Your task to perform on an android device: open device folders in google photos Image 0: 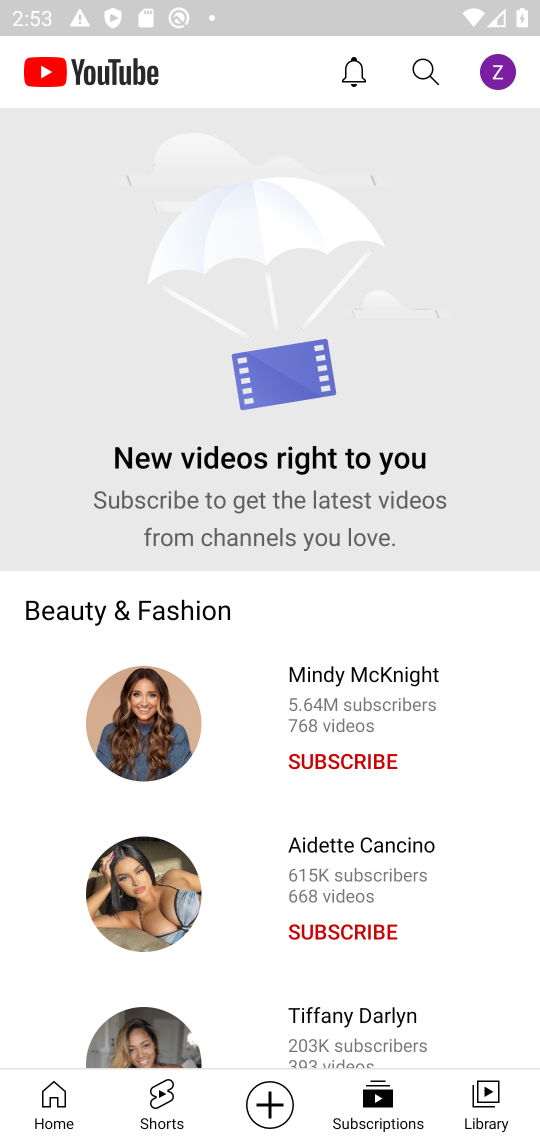
Step 0: press home button
Your task to perform on an android device: open device folders in google photos Image 1: 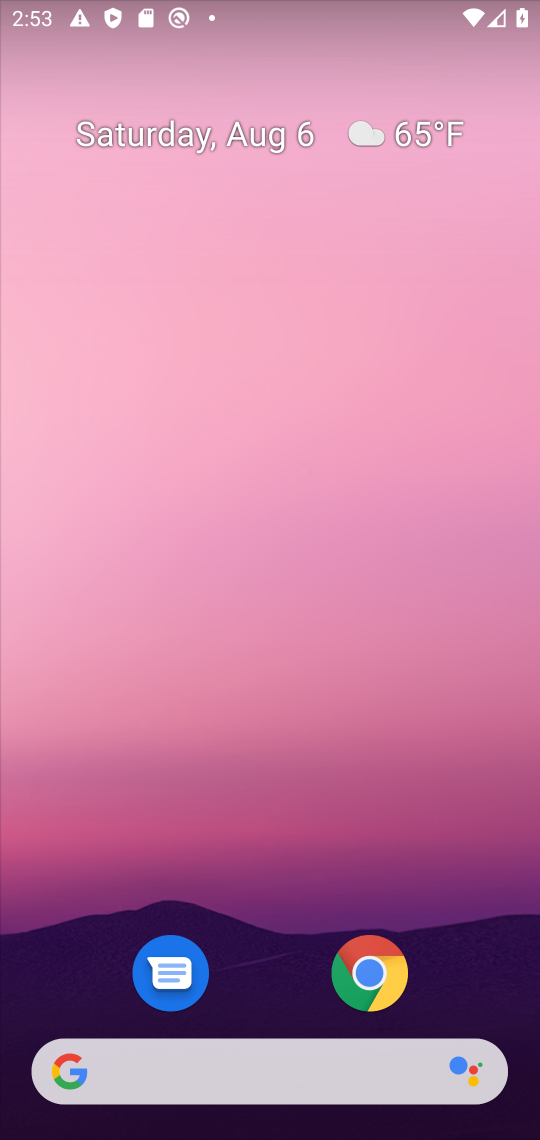
Step 1: drag from (267, 917) to (305, 26)
Your task to perform on an android device: open device folders in google photos Image 2: 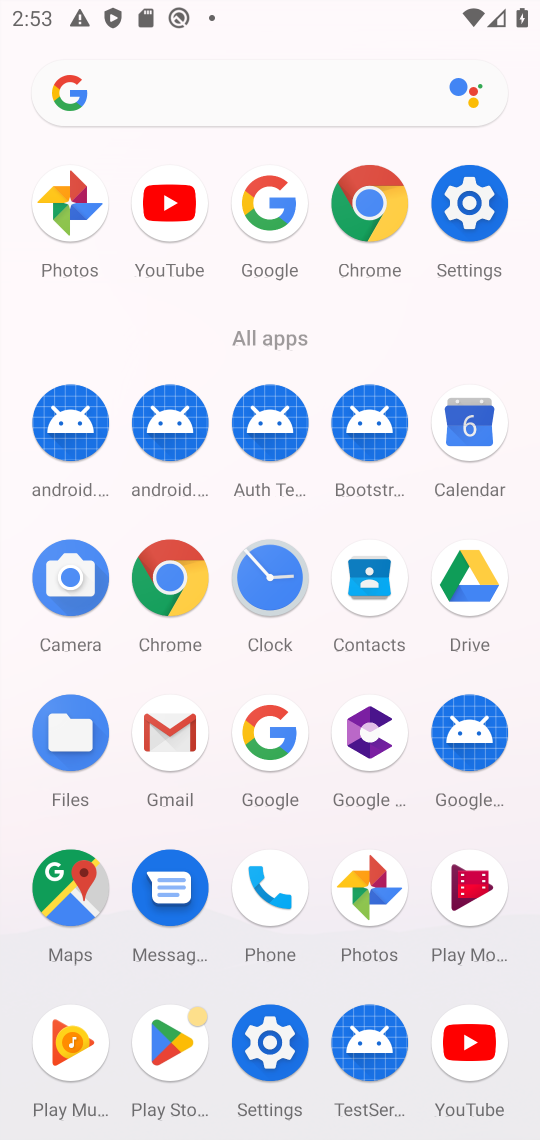
Step 2: click (367, 888)
Your task to perform on an android device: open device folders in google photos Image 3: 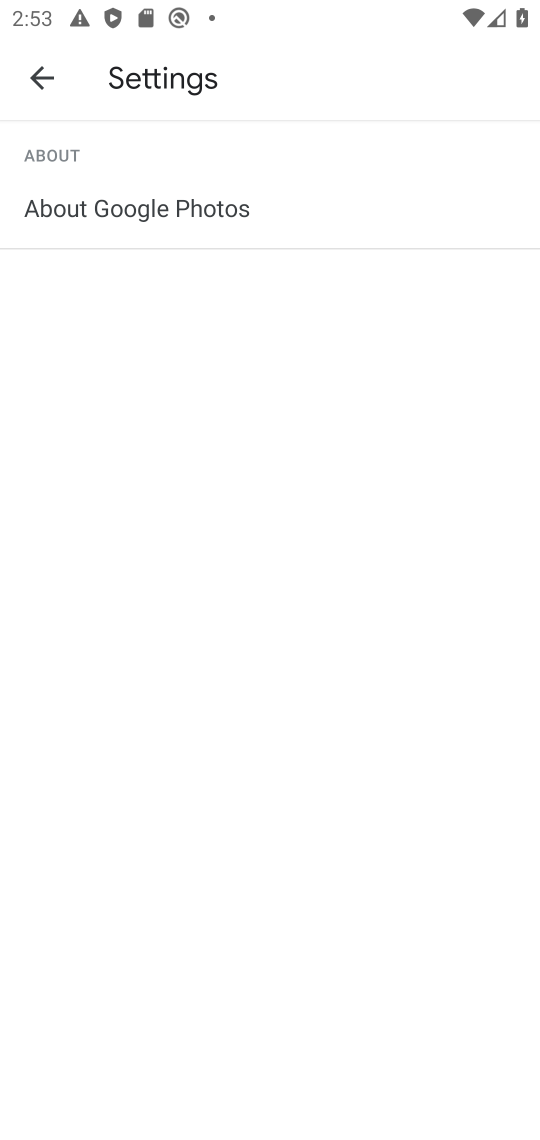
Step 3: click (54, 78)
Your task to perform on an android device: open device folders in google photos Image 4: 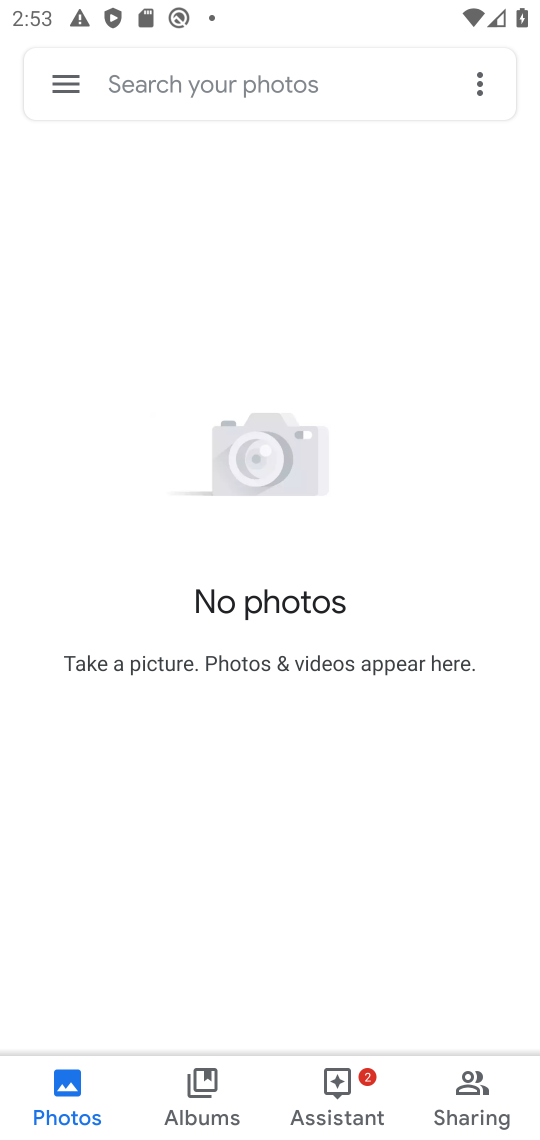
Step 4: click (75, 86)
Your task to perform on an android device: open device folders in google photos Image 5: 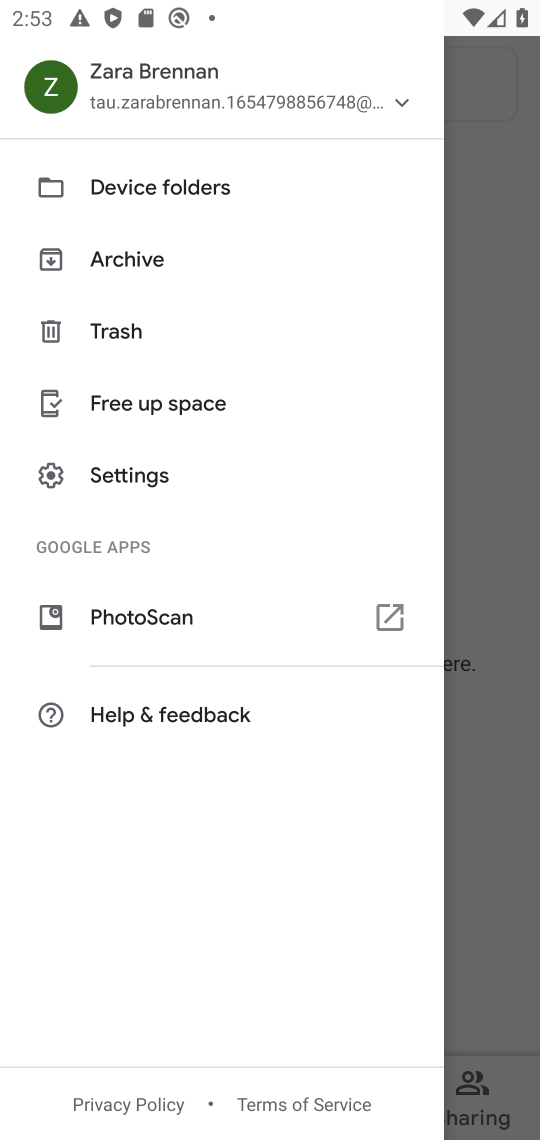
Step 5: click (165, 197)
Your task to perform on an android device: open device folders in google photos Image 6: 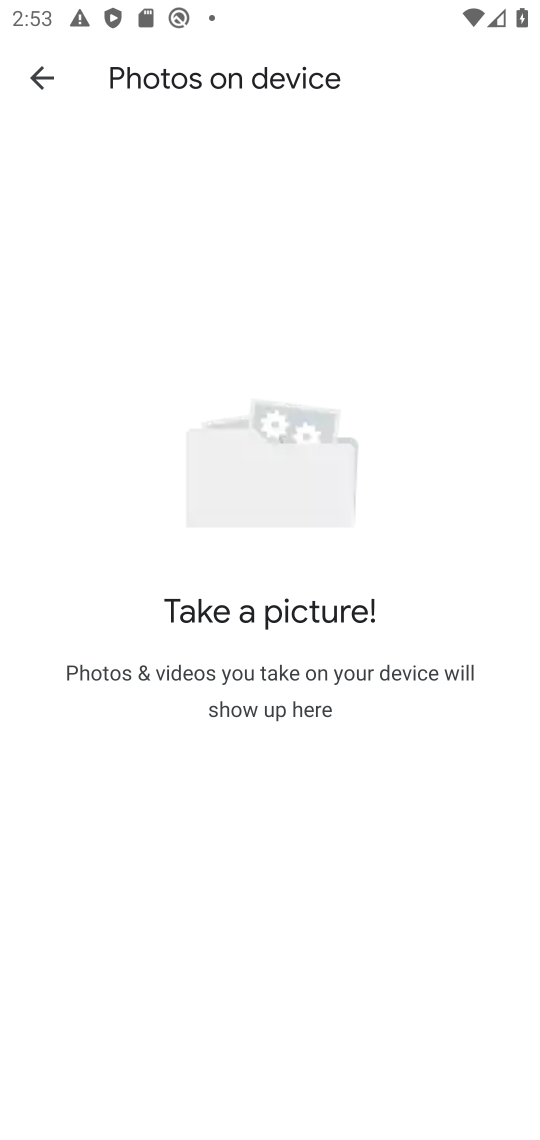
Step 6: task complete